Your task to perform on an android device: open app "HBO Max: Stream TV & Movies" Image 0: 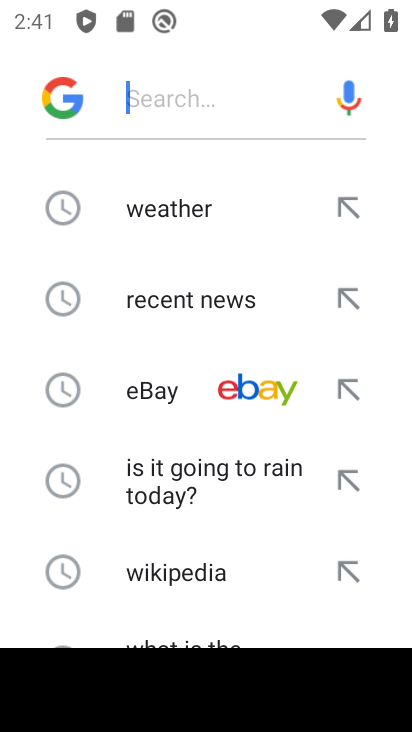
Step 0: press home button
Your task to perform on an android device: open app "HBO Max: Stream TV & Movies" Image 1: 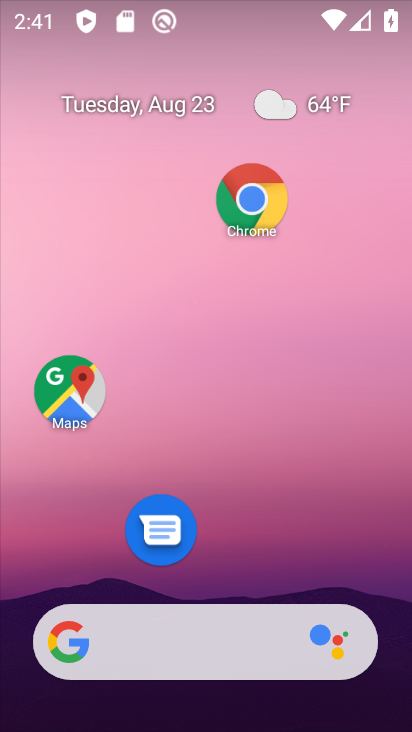
Step 1: drag from (246, 530) to (301, 5)
Your task to perform on an android device: open app "HBO Max: Stream TV & Movies" Image 2: 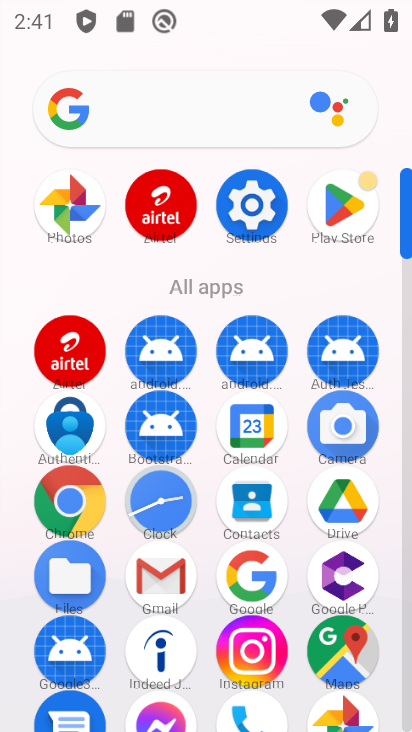
Step 2: click (363, 210)
Your task to perform on an android device: open app "HBO Max: Stream TV & Movies" Image 3: 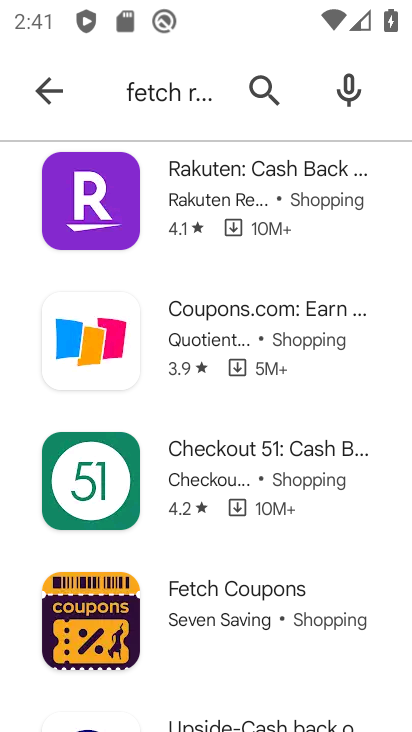
Step 3: click (190, 101)
Your task to perform on an android device: open app "HBO Max: Stream TV & Movies" Image 4: 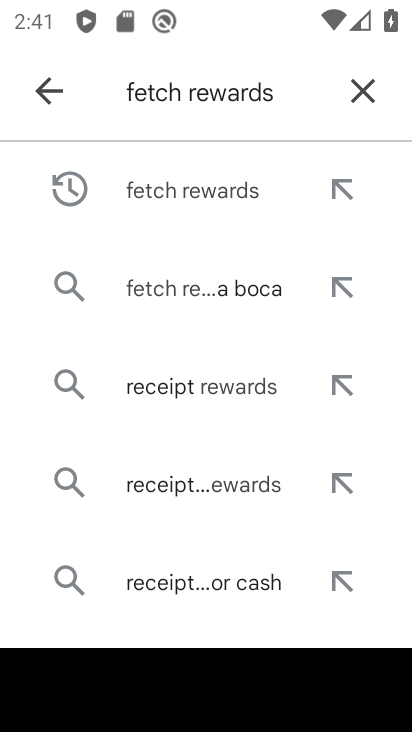
Step 4: click (368, 99)
Your task to perform on an android device: open app "HBO Max: Stream TV & Movies" Image 5: 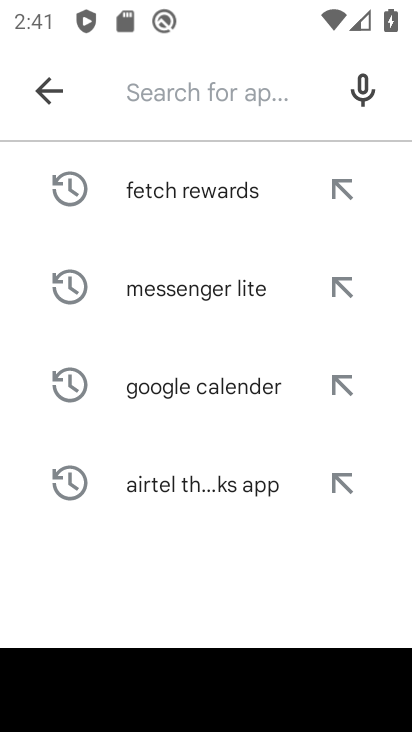
Step 5: type "HBO max"
Your task to perform on an android device: open app "HBO Max: Stream TV & Movies" Image 6: 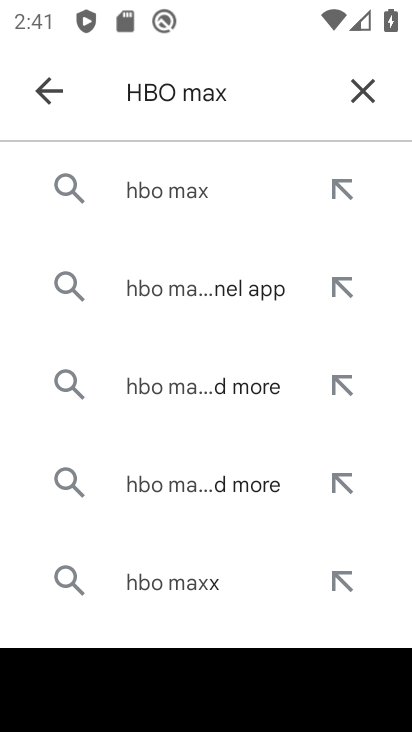
Step 6: click (200, 199)
Your task to perform on an android device: open app "HBO Max: Stream TV & Movies" Image 7: 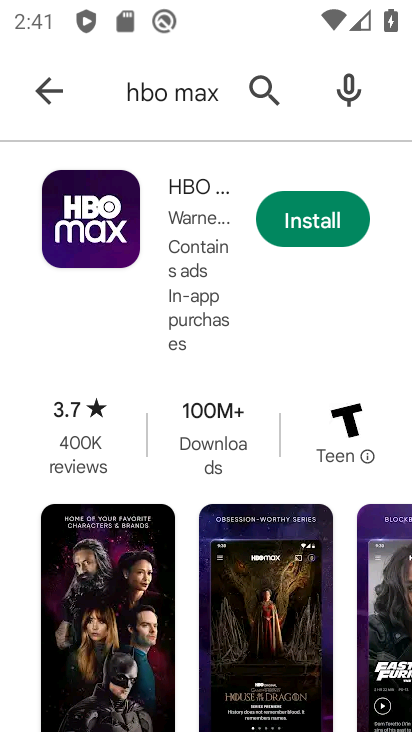
Step 7: task complete